Your task to perform on an android device: Play the last video I watched on Youtube Image 0: 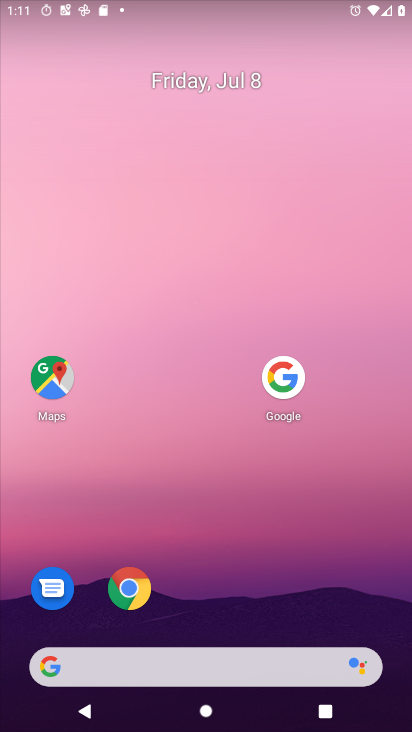
Step 0: drag from (152, 668) to (288, 0)
Your task to perform on an android device: Play the last video I watched on Youtube Image 1: 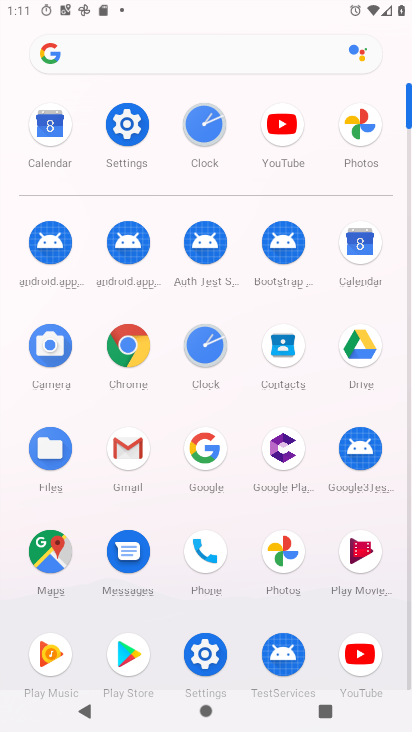
Step 1: click (366, 654)
Your task to perform on an android device: Play the last video I watched on Youtube Image 2: 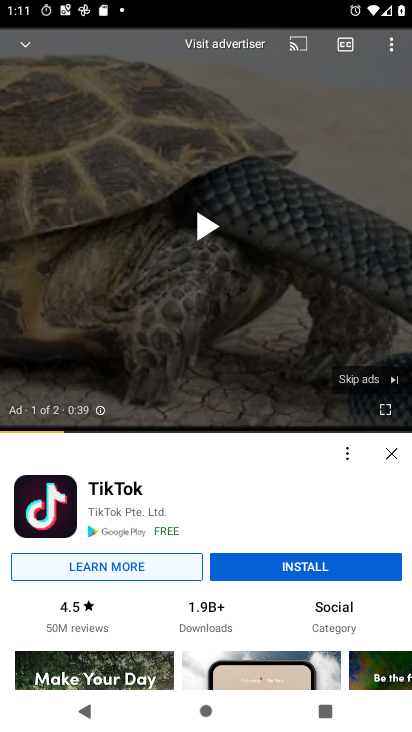
Step 2: click (207, 226)
Your task to perform on an android device: Play the last video I watched on Youtube Image 3: 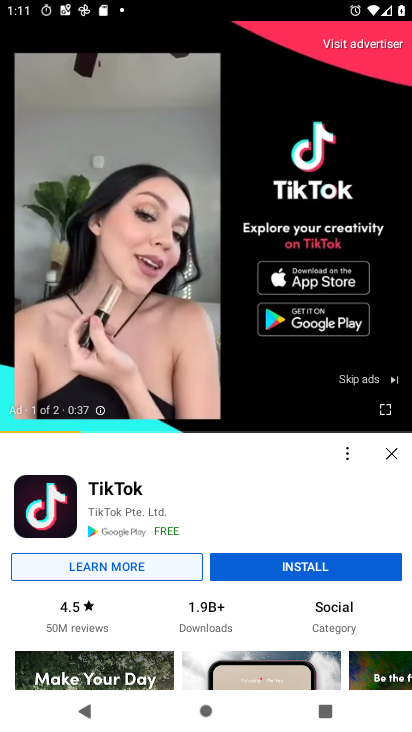
Step 3: click (345, 375)
Your task to perform on an android device: Play the last video I watched on Youtube Image 4: 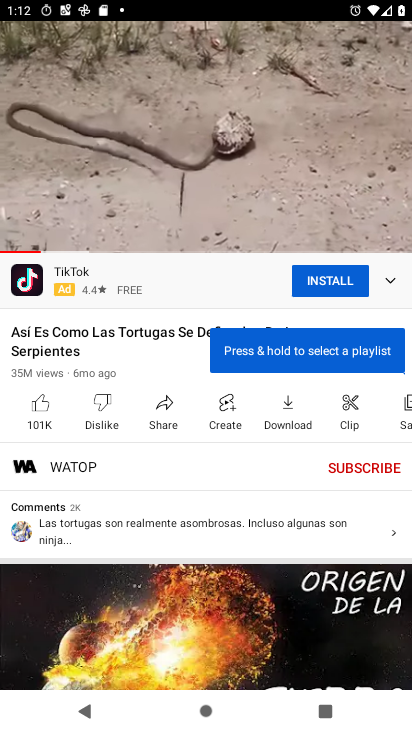
Step 4: click (227, 119)
Your task to perform on an android device: Play the last video I watched on Youtube Image 5: 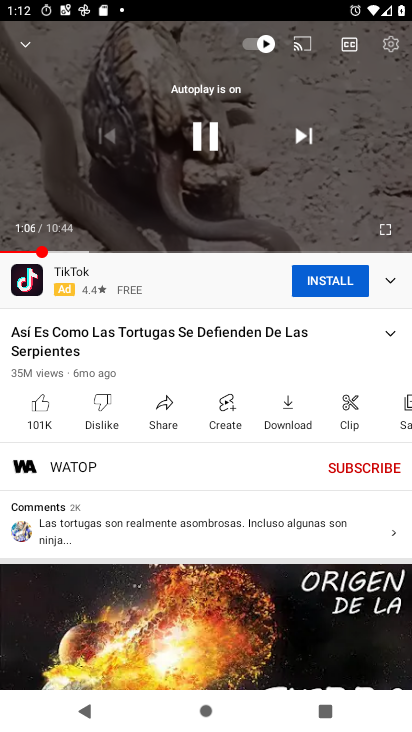
Step 5: click (207, 127)
Your task to perform on an android device: Play the last video I watched on Youtube Image 6: 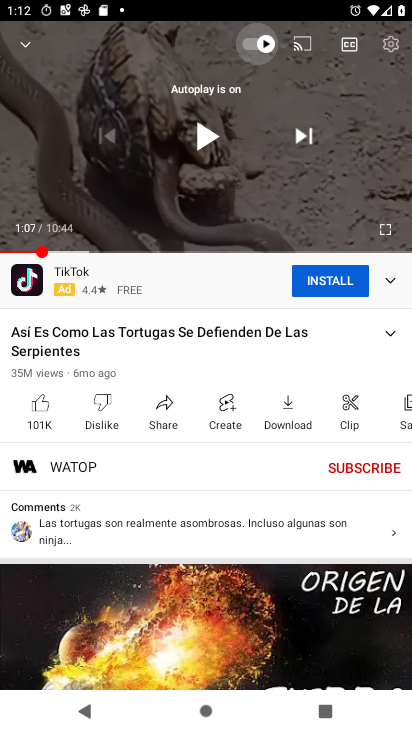
Step 6: task complete